Your task to perform on an android device: turn off notifications in google photos Image 0: 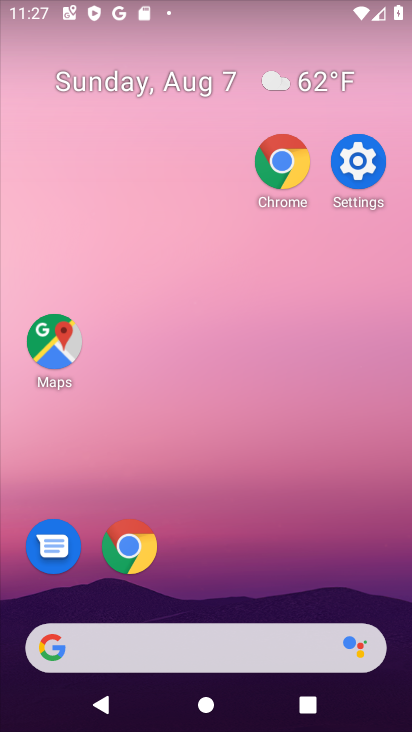
Step 0: drag from (221, 677) to (221, 267)
Your task to perform on an android device: turn off notifications in google photos Image 1: 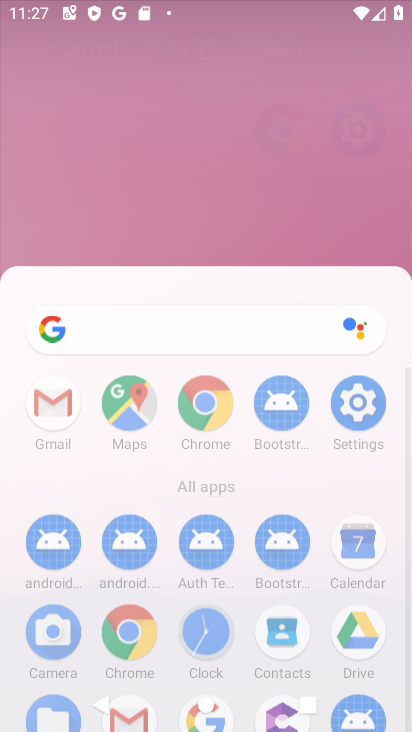
Step 1: drag from (282, 601) to (317, 247)
Your task to perform on an android device: turn off notifications in google photos Image 2: 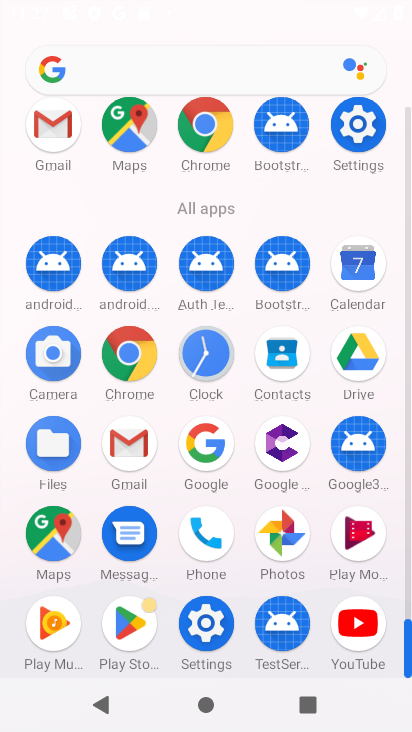
Step 2: click (281, 538)
Your task to perform on an android device: turn off notifications in google photos Image 3: 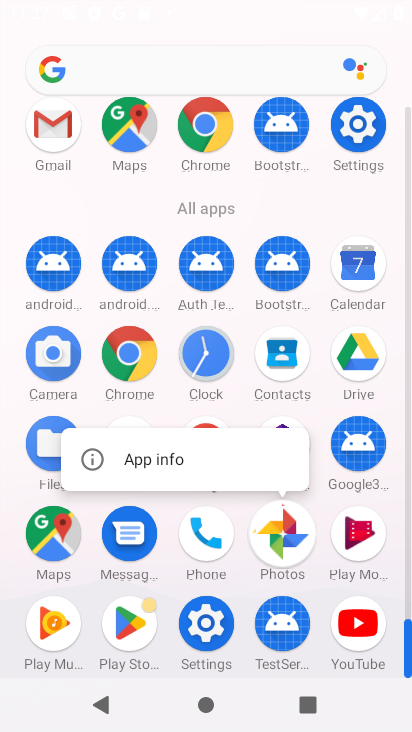
Step 3: click (281, 538)
Your task to perform on an android device: turn off notifications in google photos Image 4: 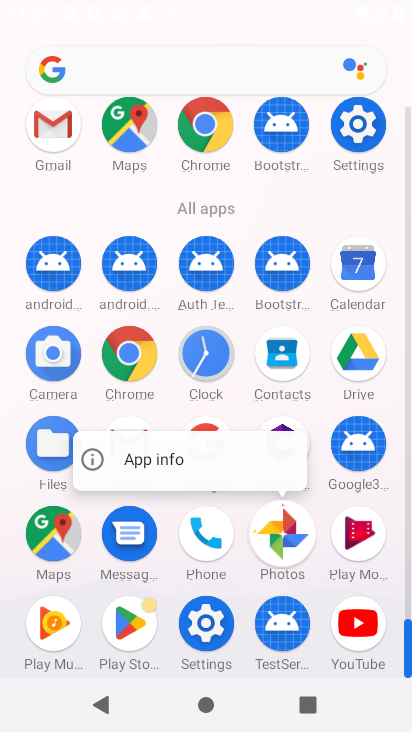
Step 4: click (281, 538)
Your task to perform on an android device: turn off notifications in google photos Image 5: 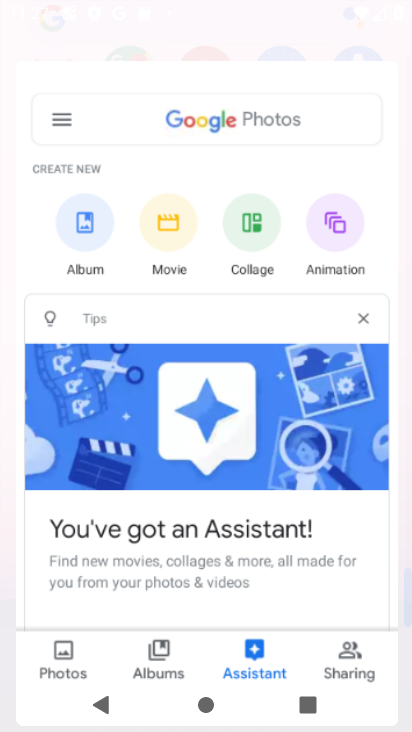
Step 5: click (281, 538)
Your task to perform on an android device: turn off notifications in google photos Image 6: 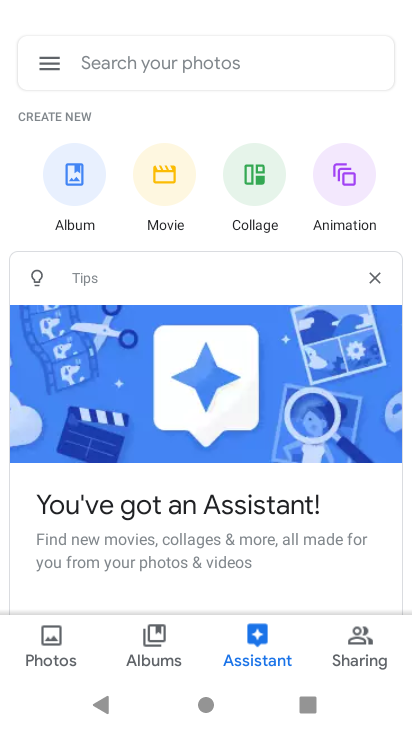
Step 6: click (45, 71)
Your task to perform on an android device: turn off notifications in google photos Image 7: 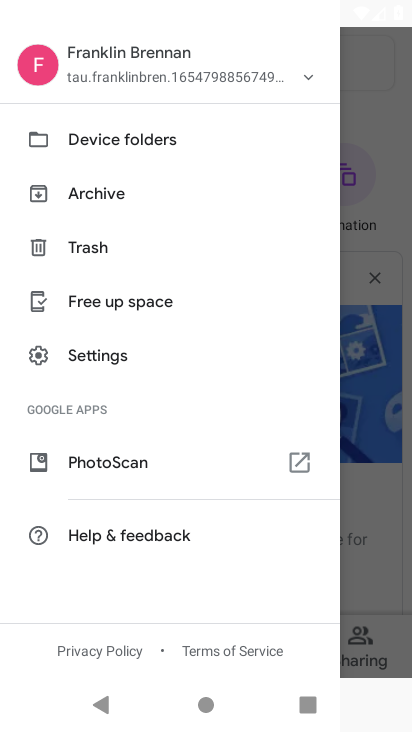
Step 7: click (108, 350)
Your task to perform on an android device: turn off notifications in google photos Image 8: 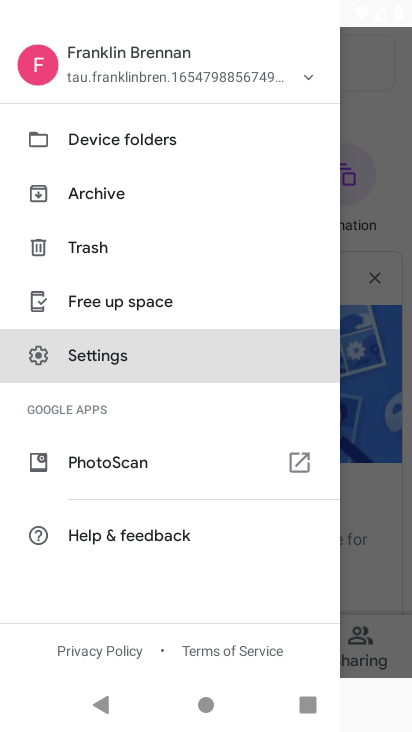
Step 8: click (107, 352)
Your task to perform on an android device: turn off notifications in google photos Image 9: 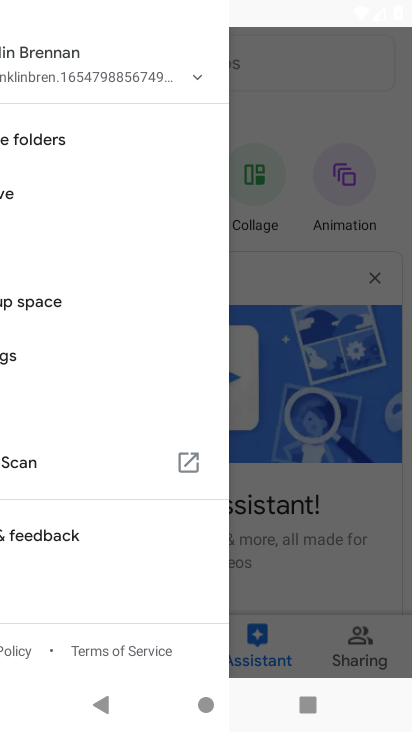
Step 9: click (112, 354)
Your task to perform on an android device: turn off notifications in google photos Image 10: 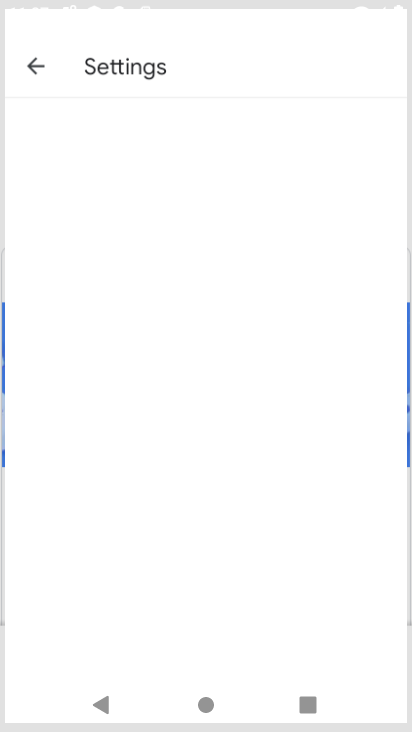
Step 10: click (112, 354)
Your task to perform on an android device: turn off notifications in google photos Image 11: 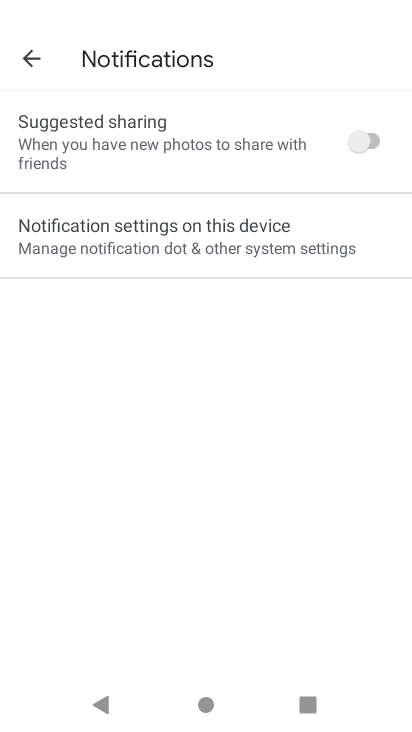
Step 11: click (328, 232)
Your task to perform on an android device: turn off notifications in google photos Image 12: 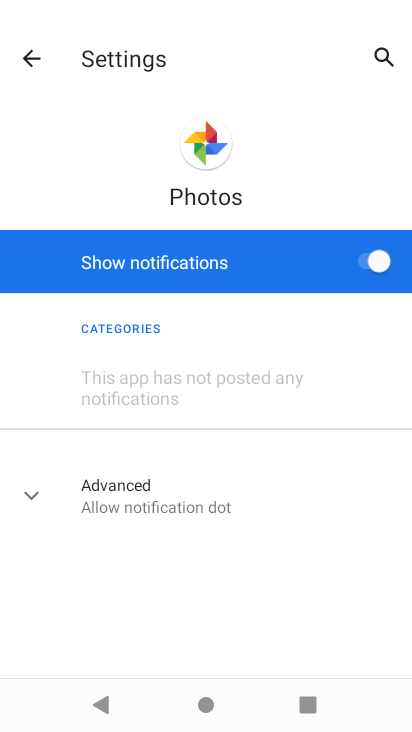
Step 12: click (374, 259)
Your task to perform on an android device: turn off notifications in google photos Image 13: 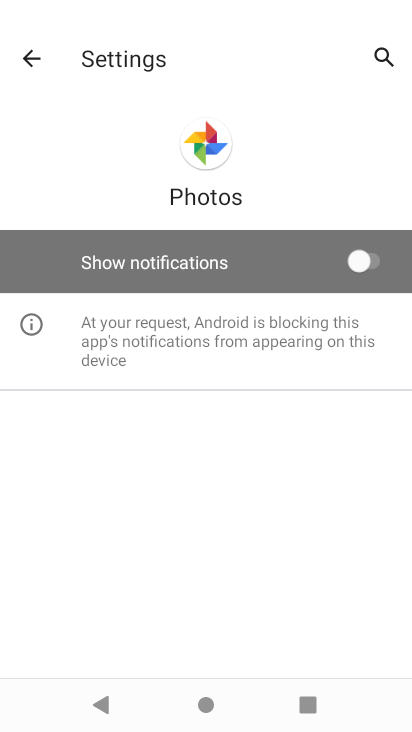
Step 13: task complete